Your task to perform on an android device: Empty the shopping cart on costco. Search for lenovo thinkpad on costco, select the first entry, add it to the cart, then select checkout. Image 0: 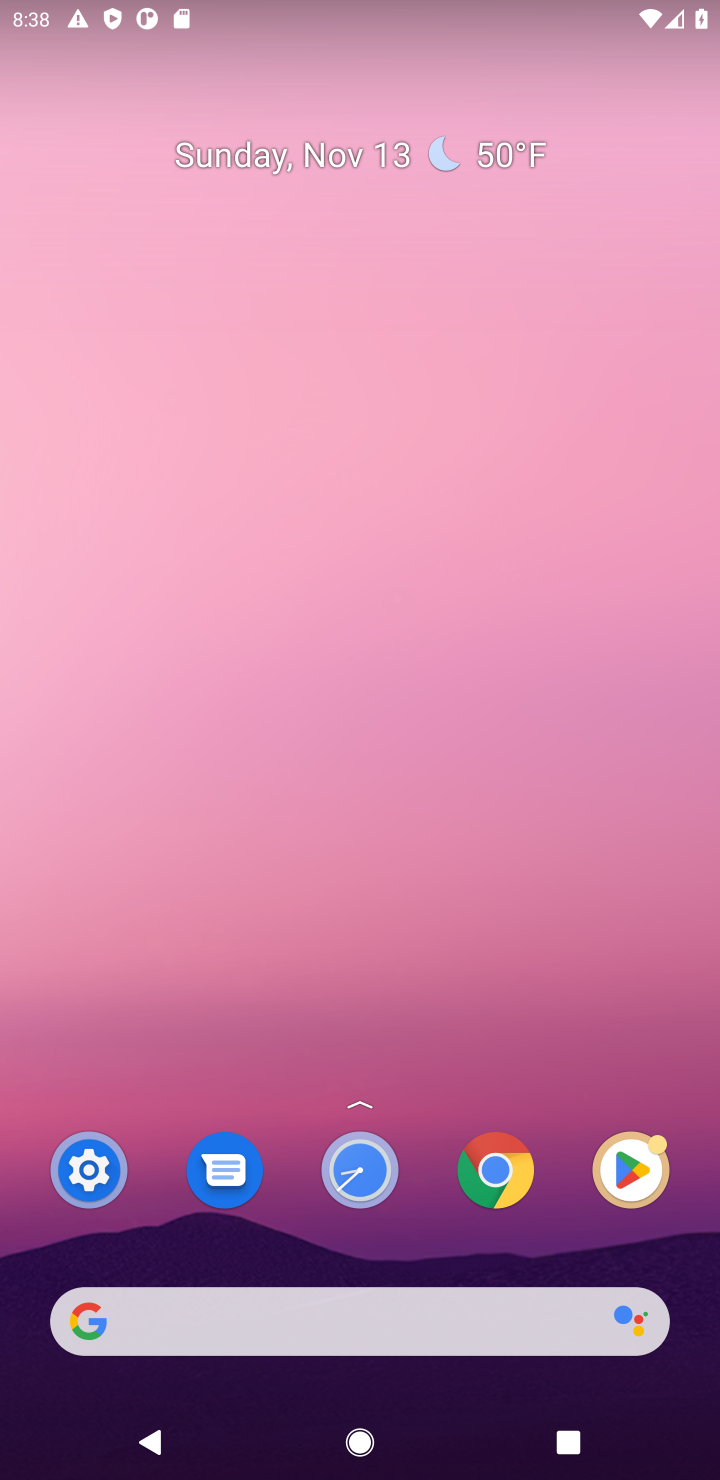
Step 0: click (392, 1321)
Your task to perform on an android device: Empty the shopping cart on costco. Search for lenovo thinkpad on costco, select the first entry, add it to the cart, then select checkout. Image 1: 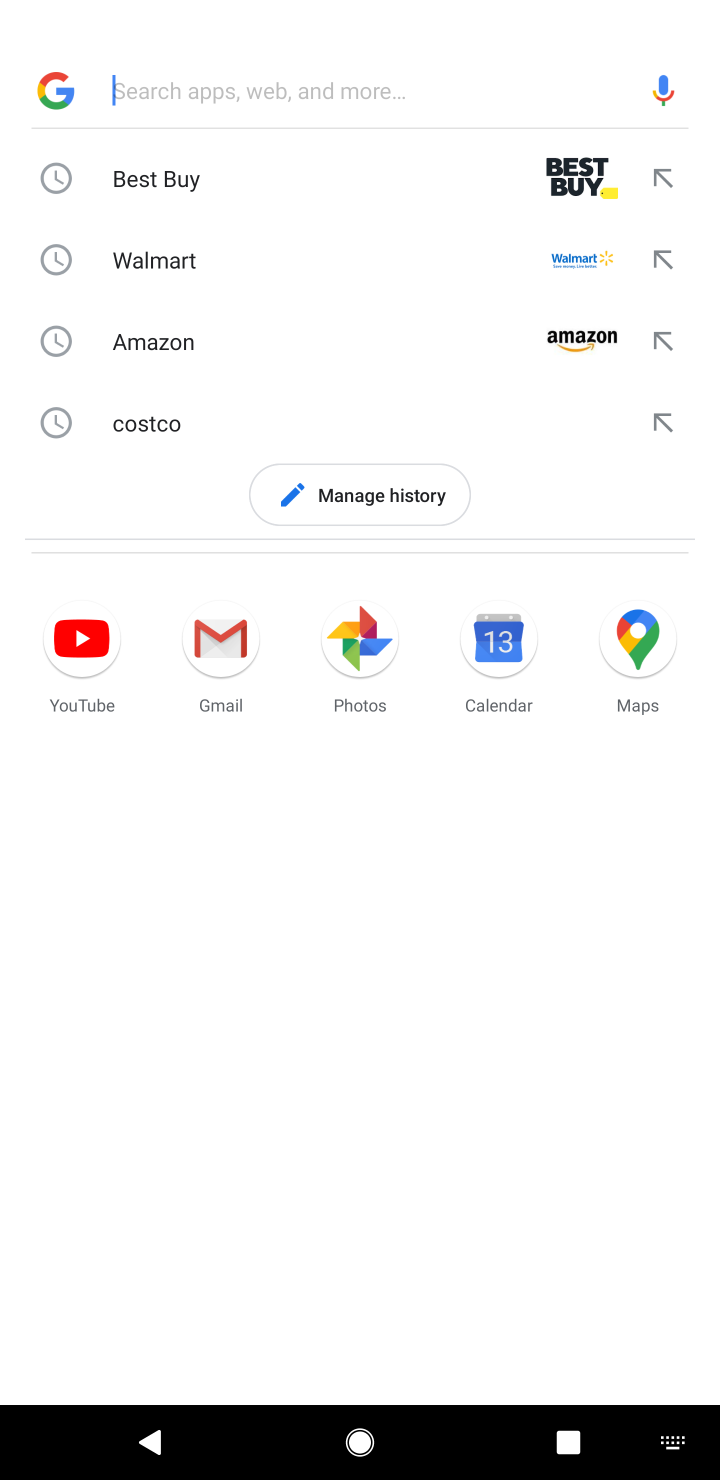
Step 1: type "costco.com"
Your task to perform on an android device: Empty the shopping cart on costco. Search for lenovo thinkpad on costco, select the first entry, add it to the cart, then select checkout. Image 2: 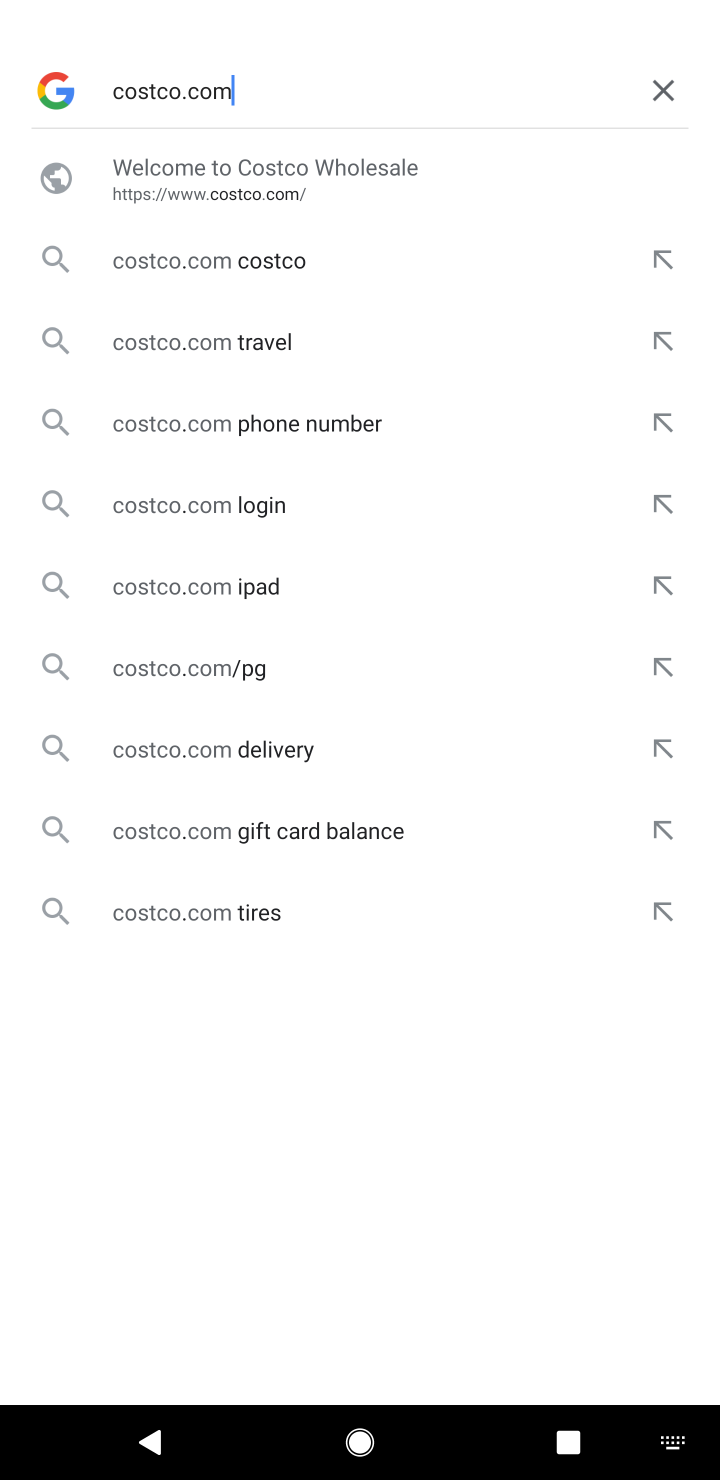
Step 2: click (216, 159)
Your task to perform on an android device: Empty the shopping cart on costco. Search for lenovo thinkpad on costco, select the first entry, add it to the cart, then select checkout. Image 3: 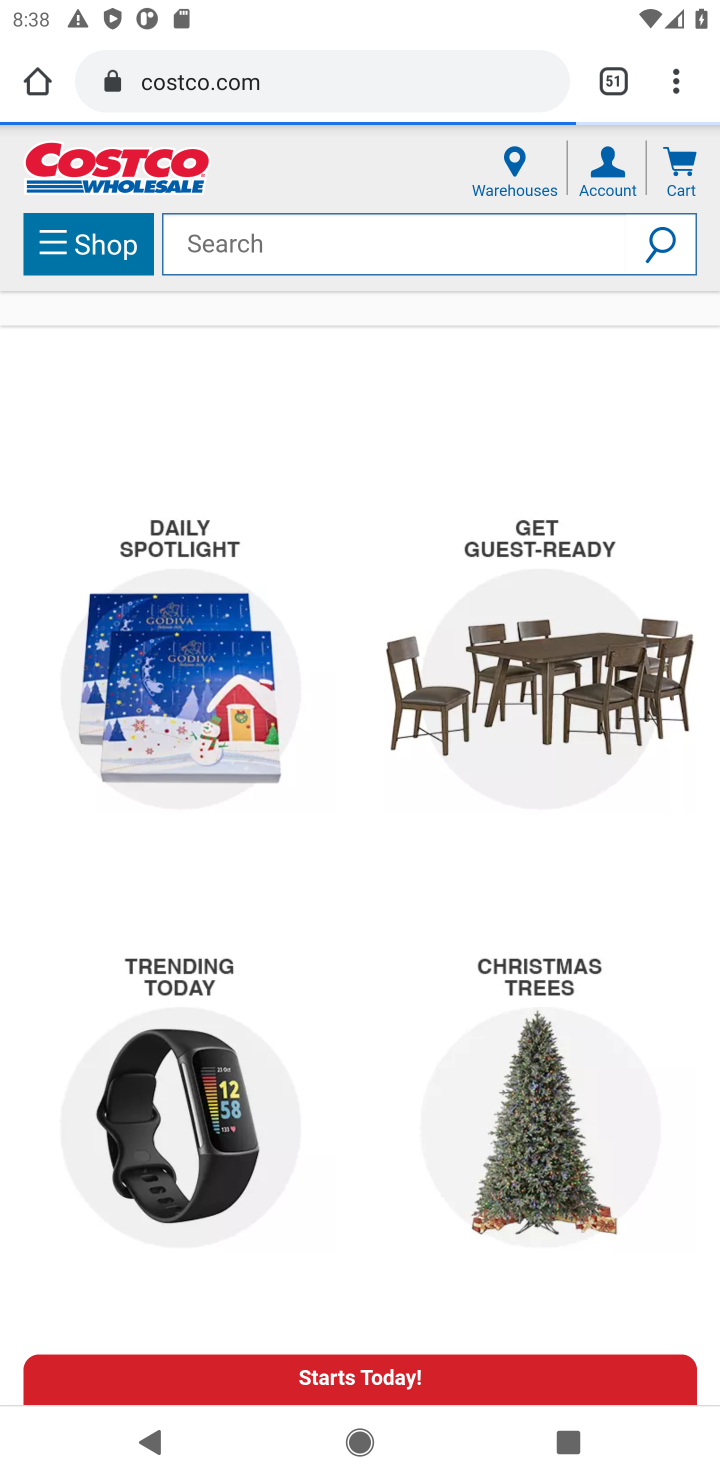
Step 3: task complete